Your task to perform on an android device: turn off notifications in google photos Image 0: 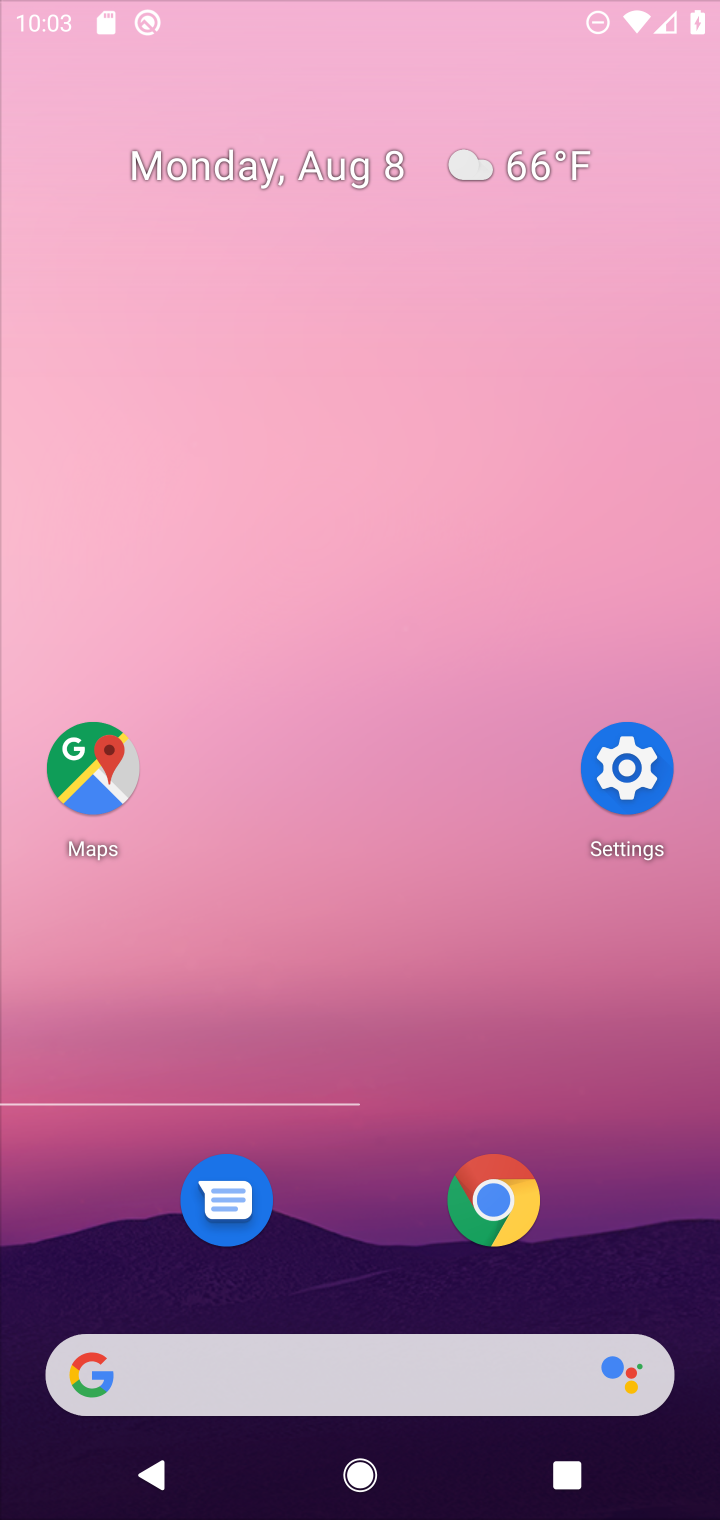
Step 0: press home button
Your task to perform on an android device: turn off notifications in google photos Image 1: 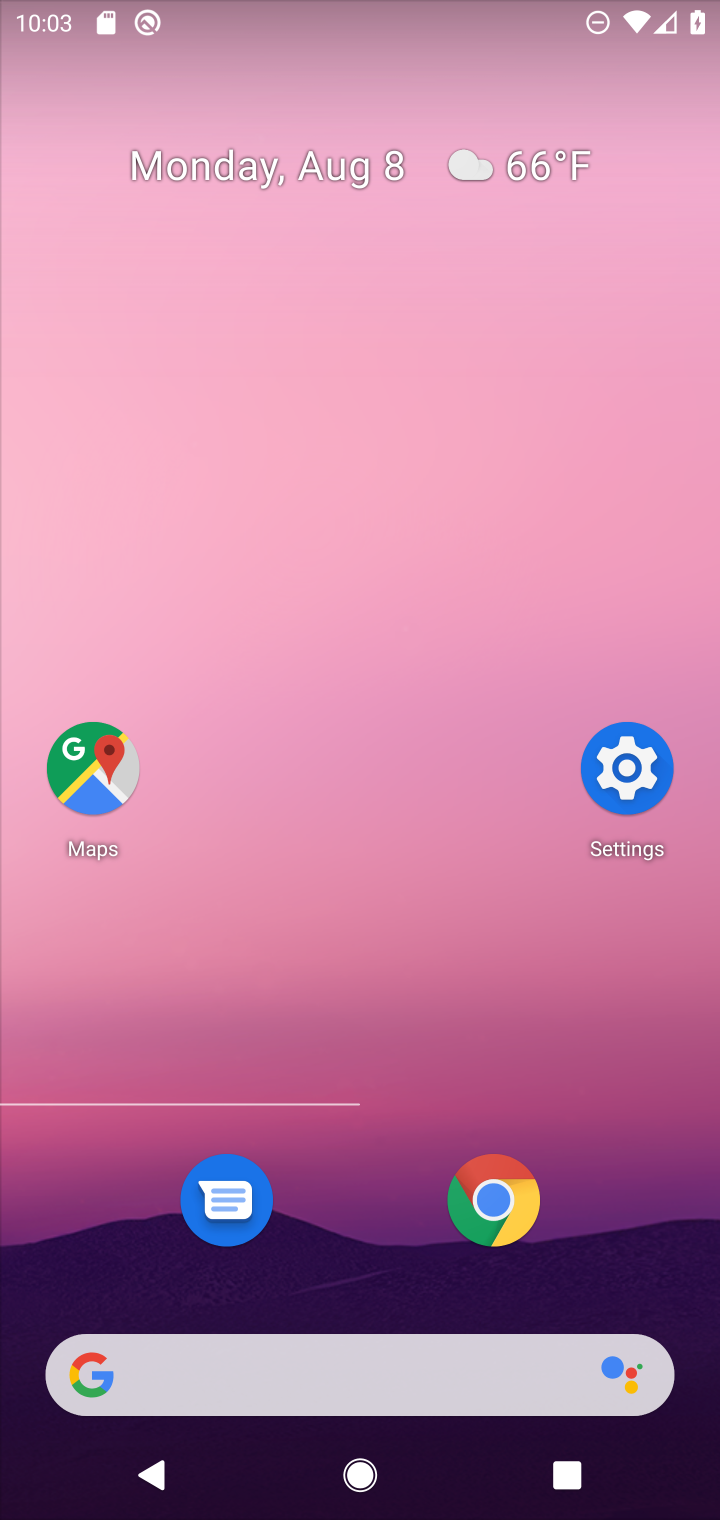
Step 1: drag from (367, 1379) to (631, 275)
Your task to perform on an android device: turn off notifications in google photos Image 2: 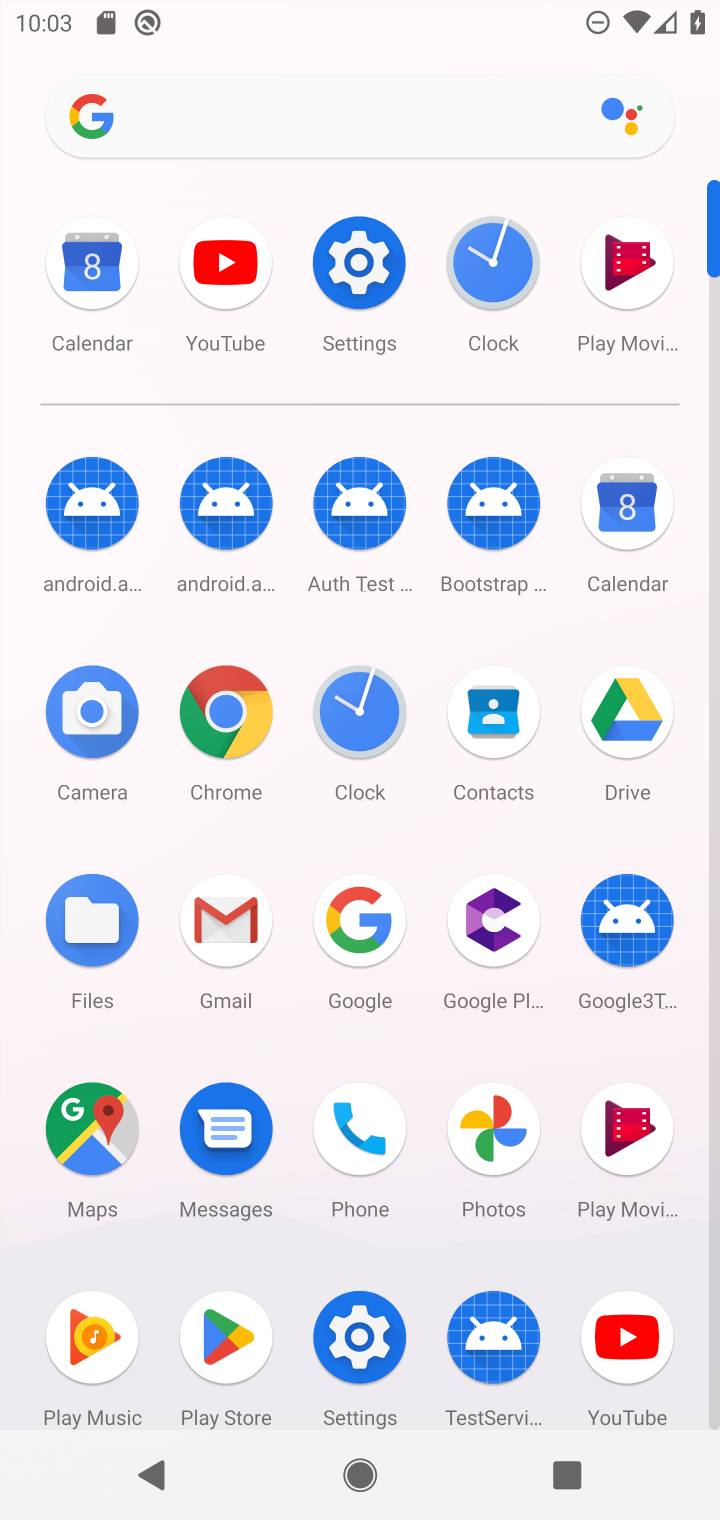
Step 2: click (488, 1133)
Your task to perform on an android device: turn off notifications in google photos Image 3: 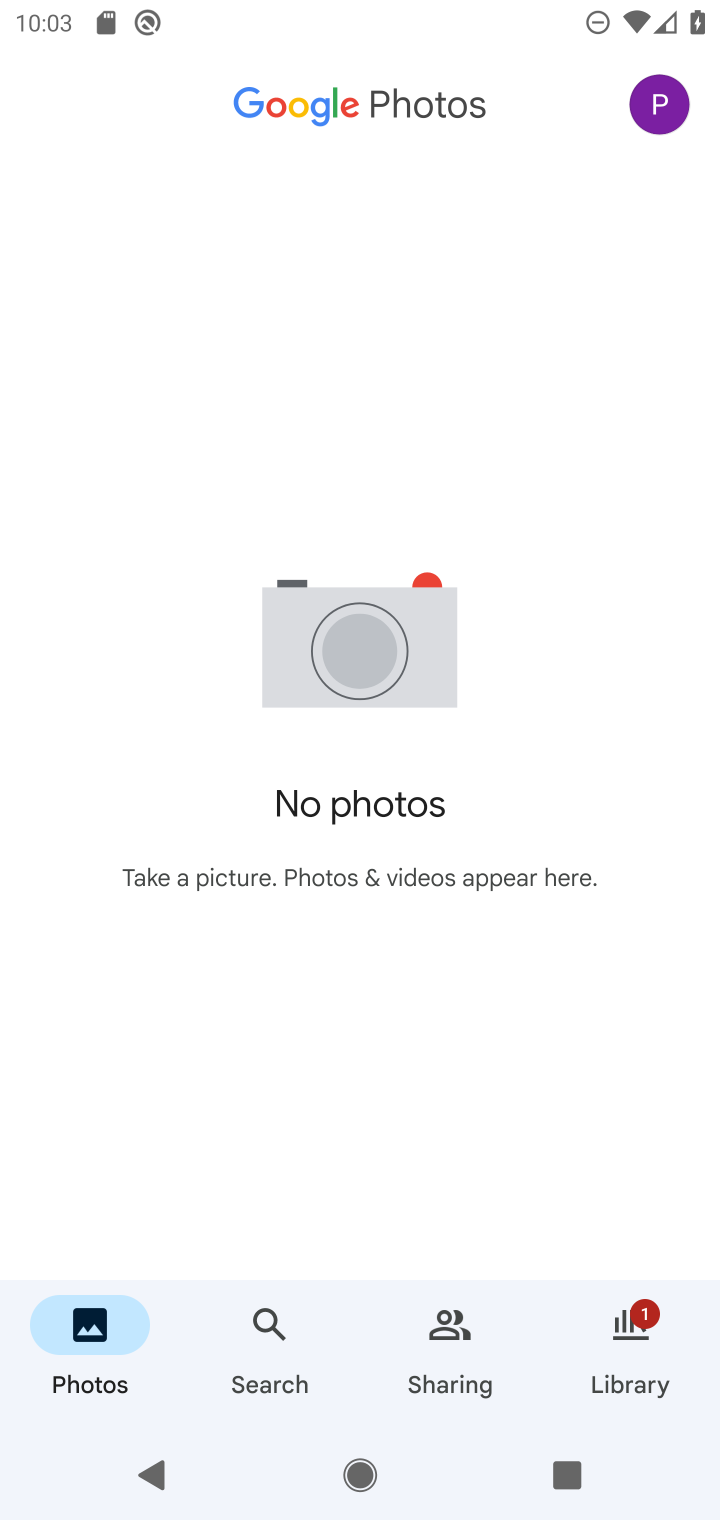
Step 3: click (652, 99)
Your task to perform on an android device: turn off notifications in google photos Image 4: 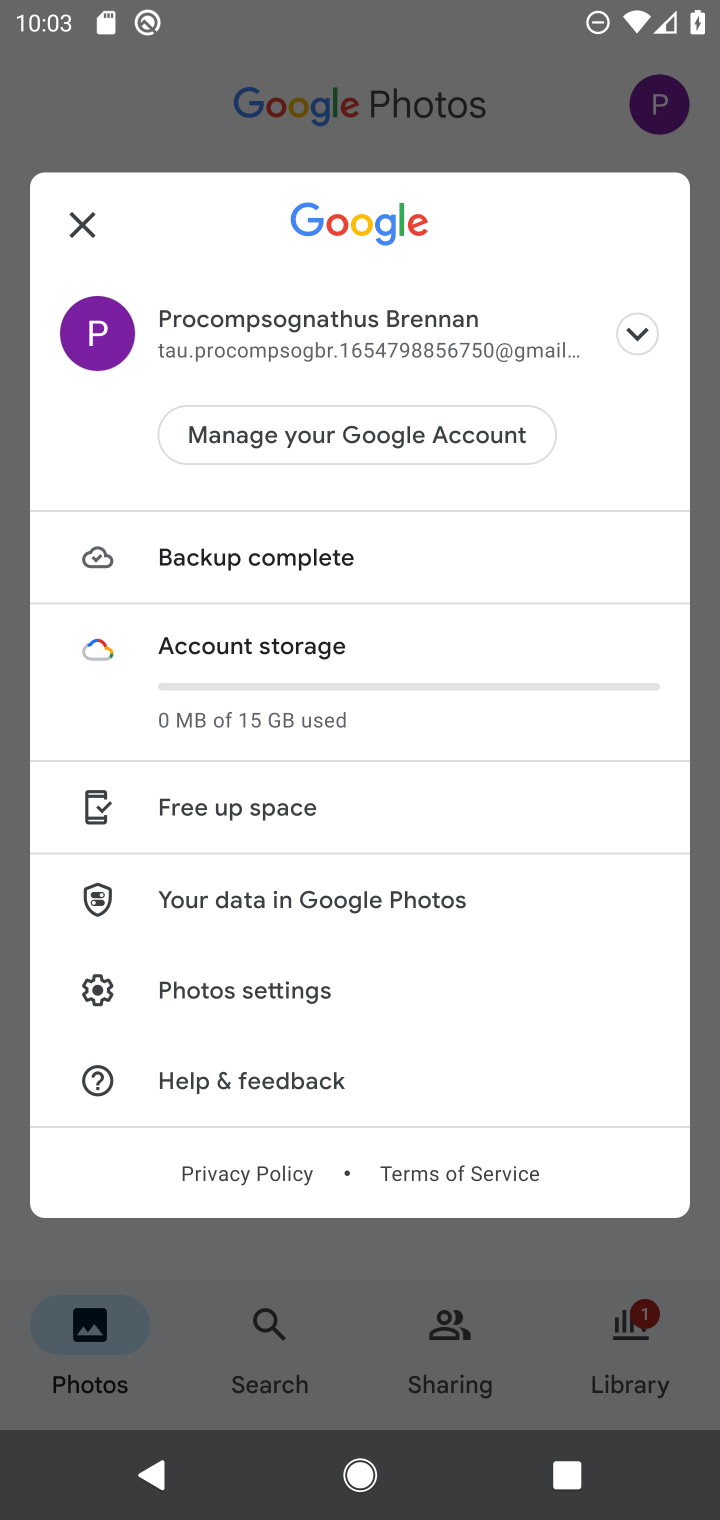
Step 4: click (274, 994)
Your task to perform on an android device: turn off notifications in google photos Image 5: 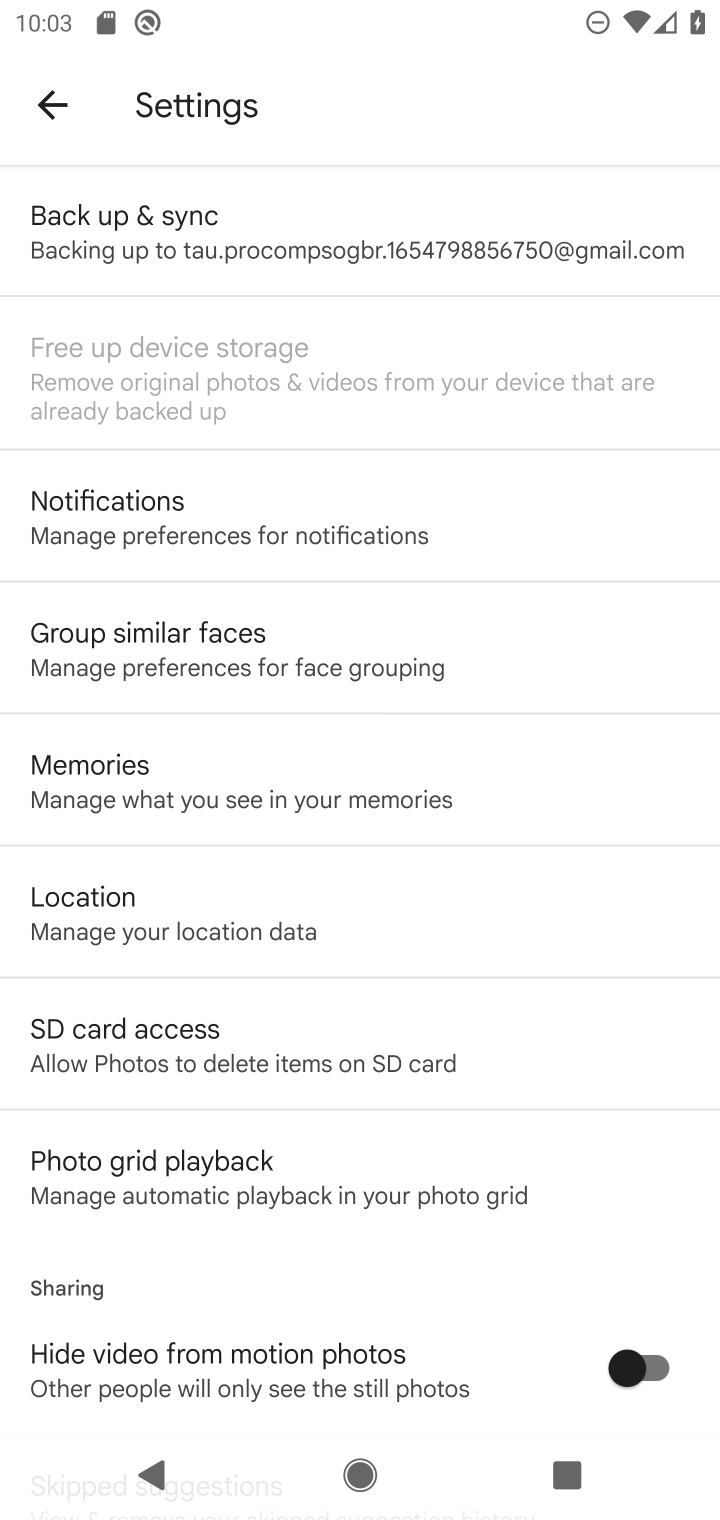
Step 5: click (370, 543)
Your task to perform on an android device: turn off notifications in google photos Image 6: 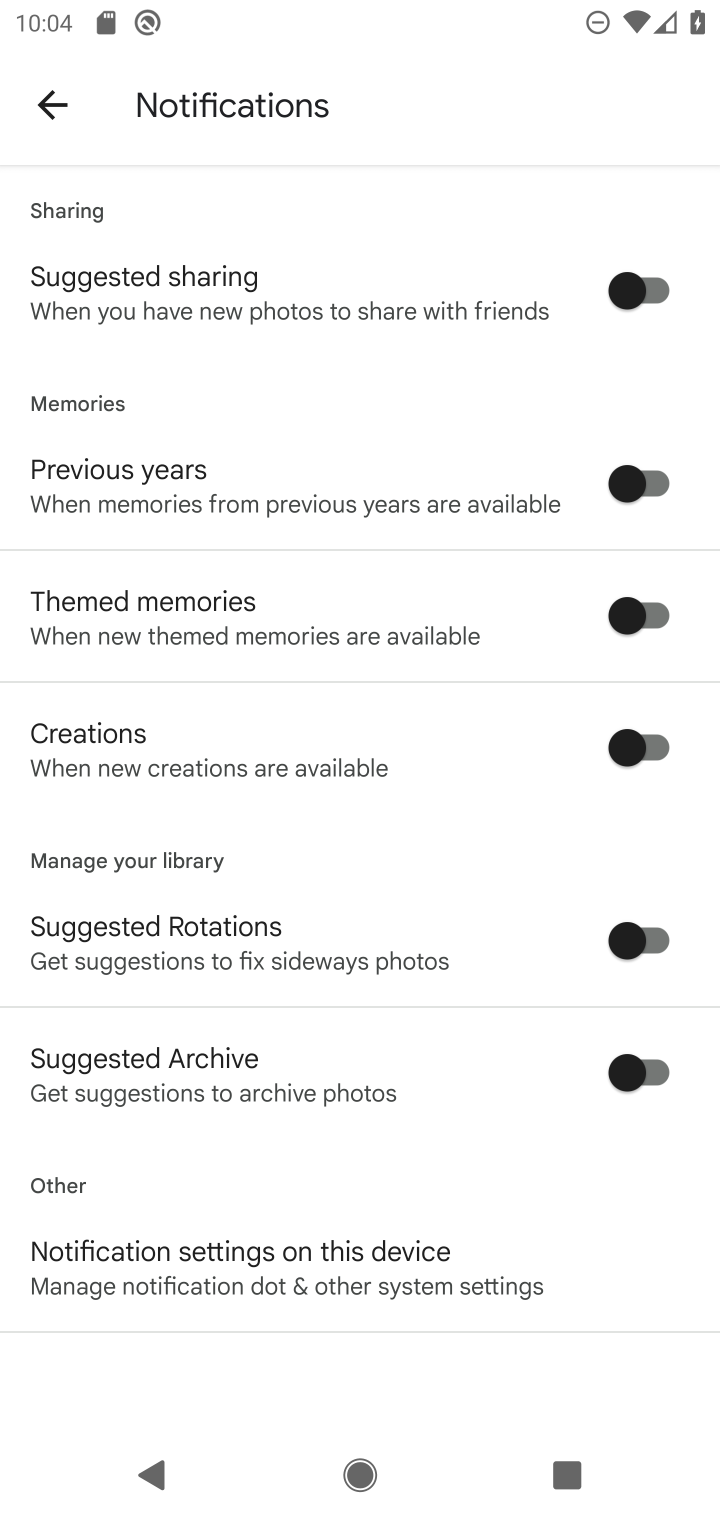
Step 6: drag from (233, 1197) to (619, 278)
Your task to perform on an android device: turn off notifications in google photos Image 7: 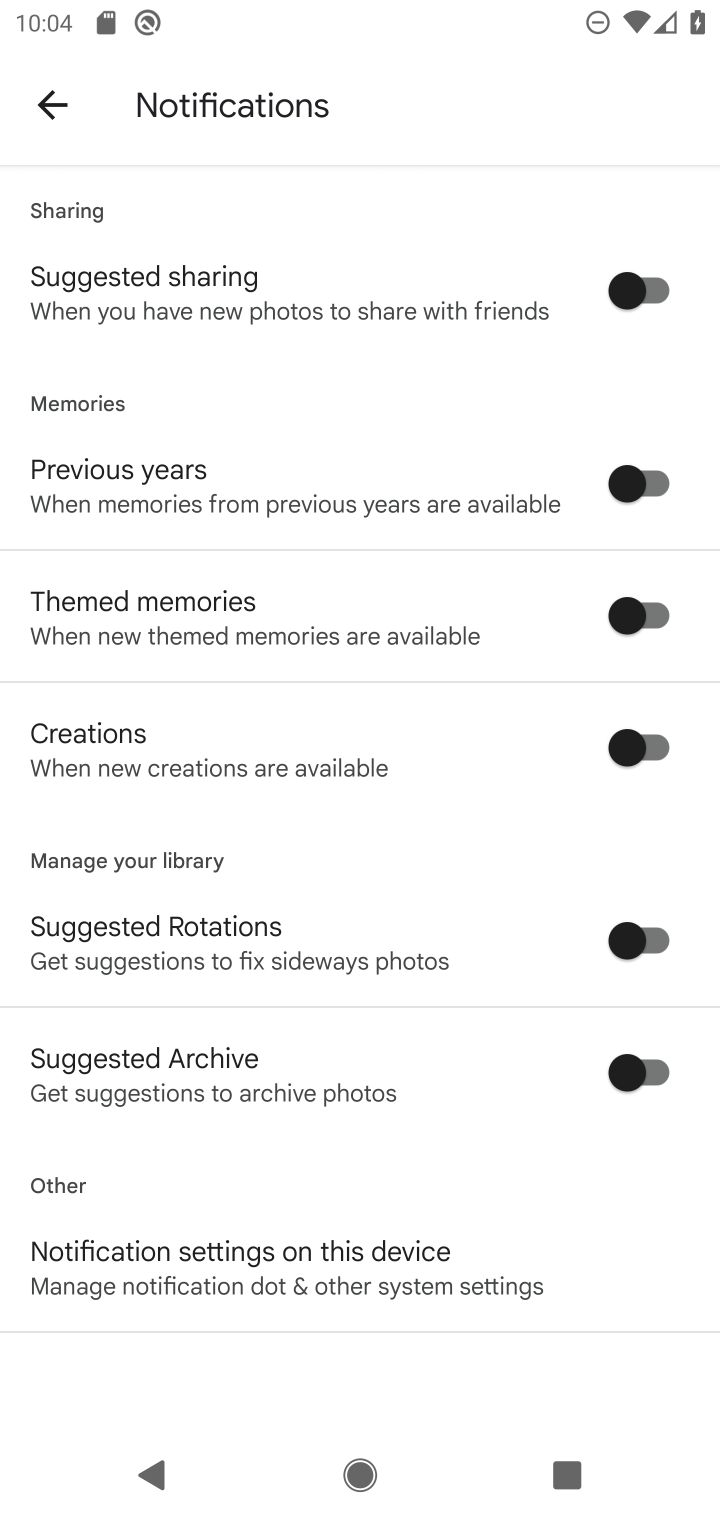
Step 7: click (248, 1264)
Your task to perform on an android device: turn off notifications in google photos Image 8: 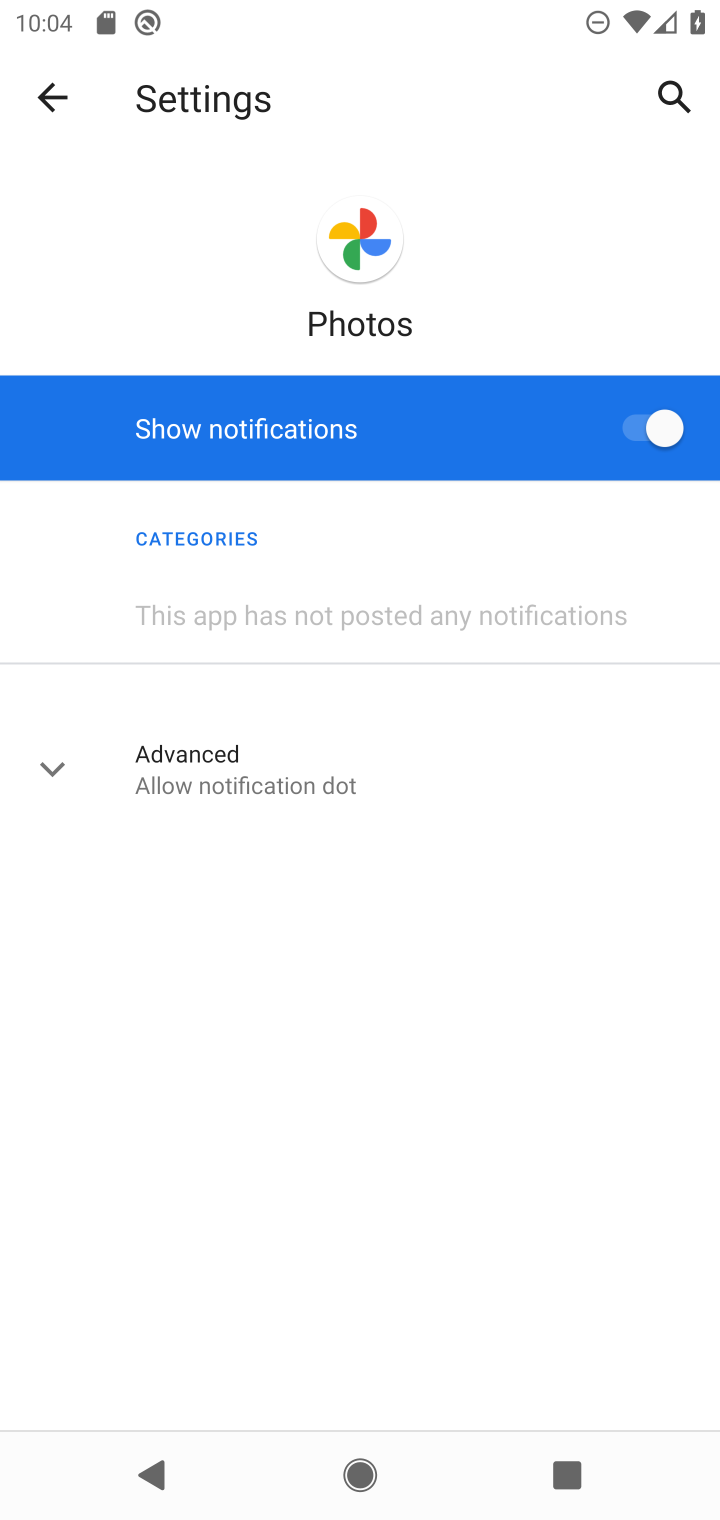
Step 8: click (640, 424)
Your task to perform on an android device: turn off notifications in google photos Image 9: 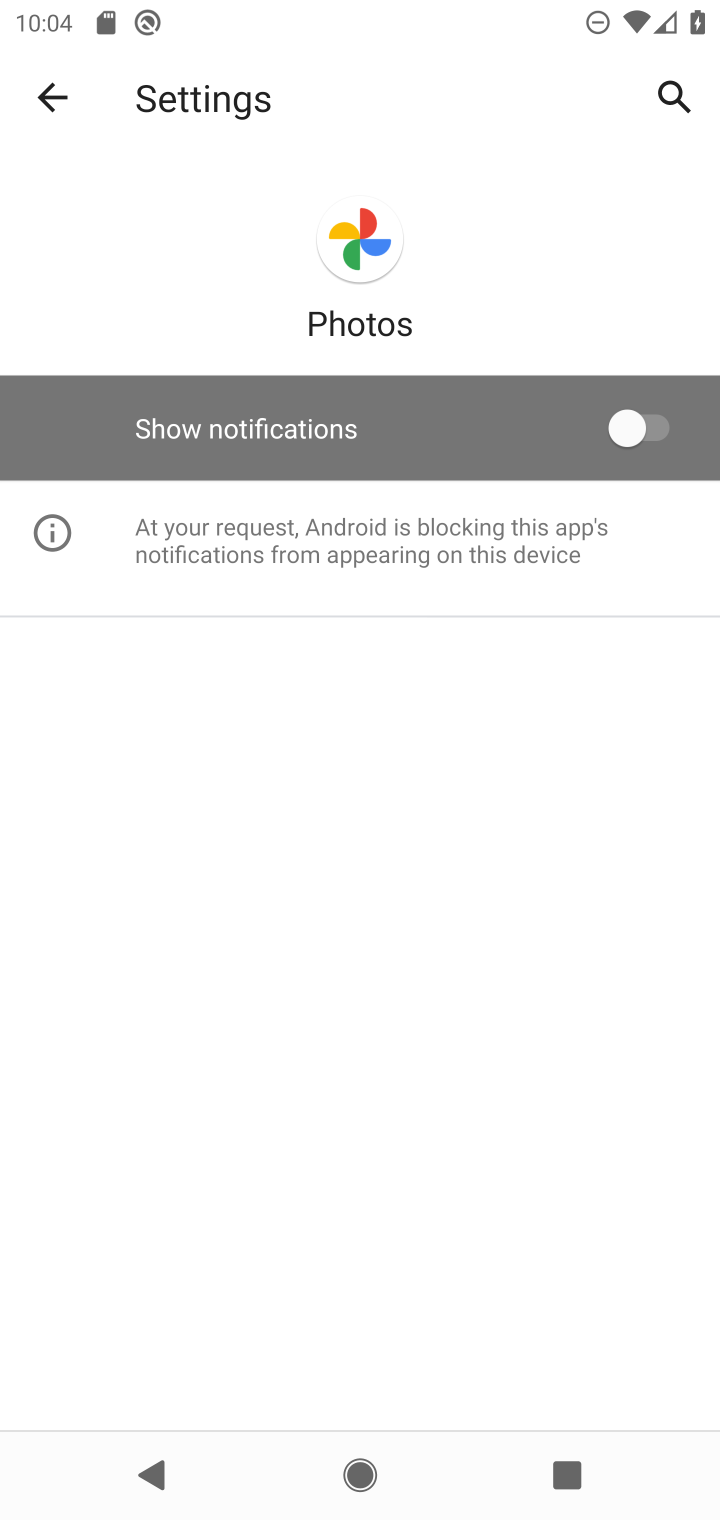
Step 9: task complete